Your task to perform on an android device: open wifi settings Image 0: 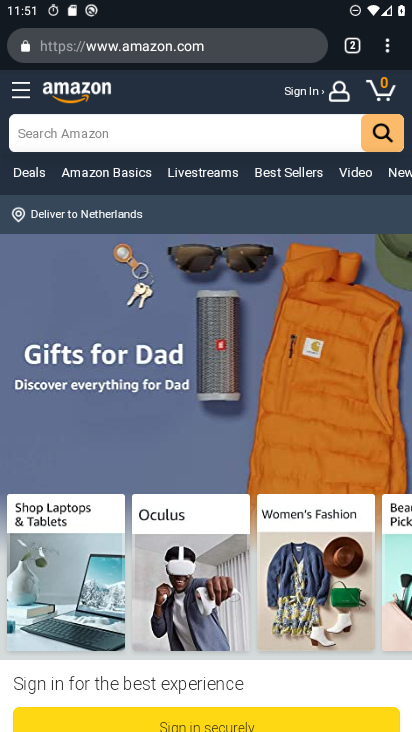
Step 0: press home button
Your task to perform on an android device: open wifi settings Image 1: 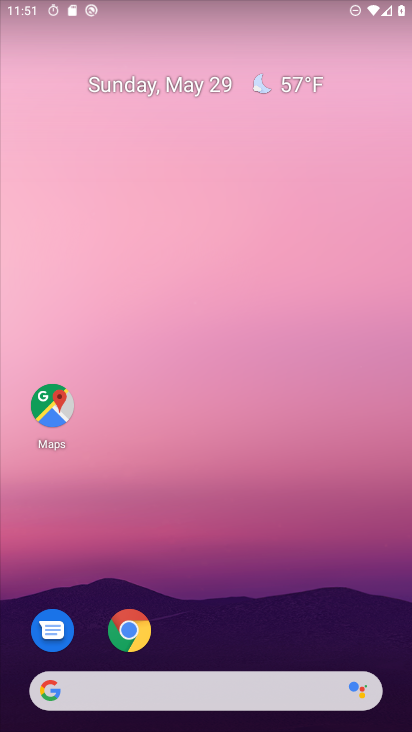
Step 1: drag from (230, 641) to (211, 267)
Your task to perform on an android device: open wifi settings Image 2: 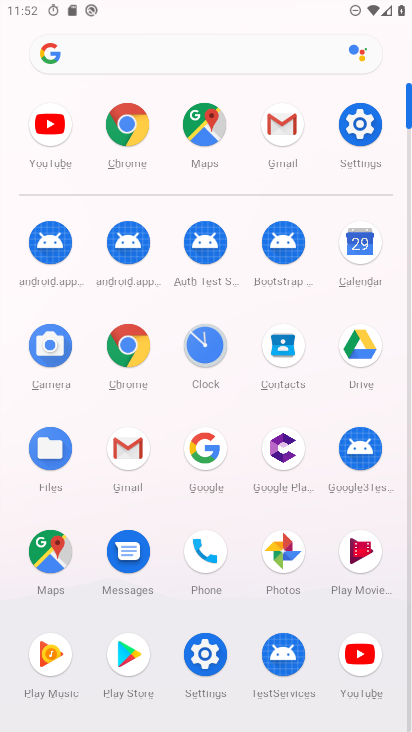
Step 2: click (340, 135)
Your task to perform on an android device: open wifi settings Image 3: 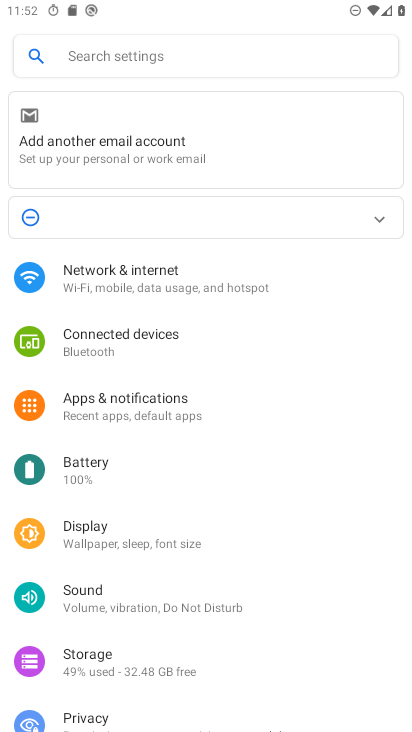
Step 3: click (113, 259)
Your task to perform on an android device: open wifi settings Image 4: 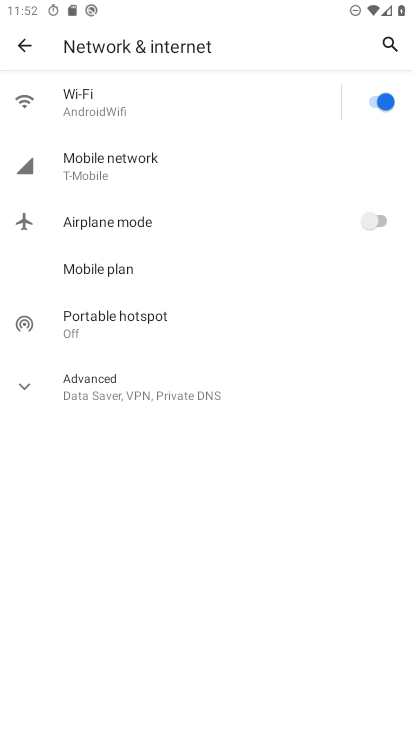
Step 4: click (122, 94)
Your task to perform on an android device: open wifi settings Image 5: 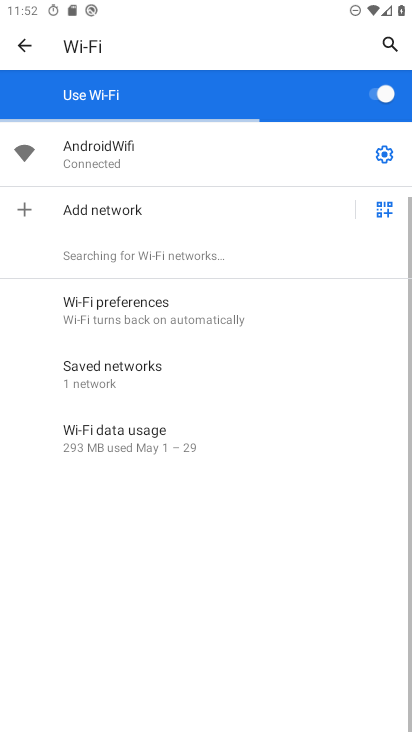
Step 5: task complete